Your task to perform on an android device: Open Youtube and go to the subscriptions tab Image 0: 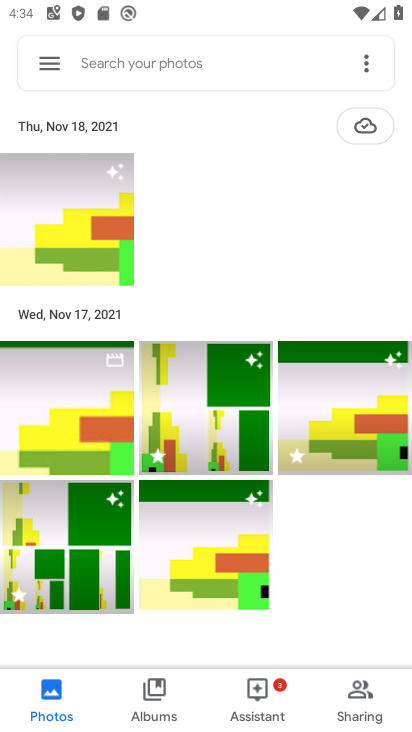
Step 0: press home button
Your task to perform on an android device: Open Youtube and go to the subscriptions tab Image 1: 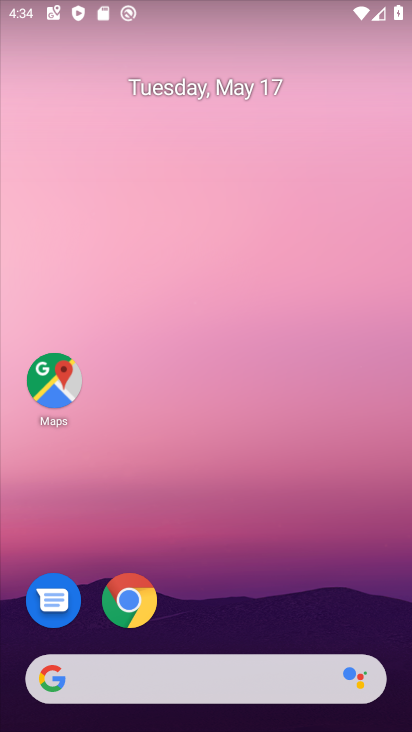
Step 1: drag from (216, 613) to (205, 3)
Your task to perform on an android device: Open Youtube and go to the subscriptions tab Image 2: 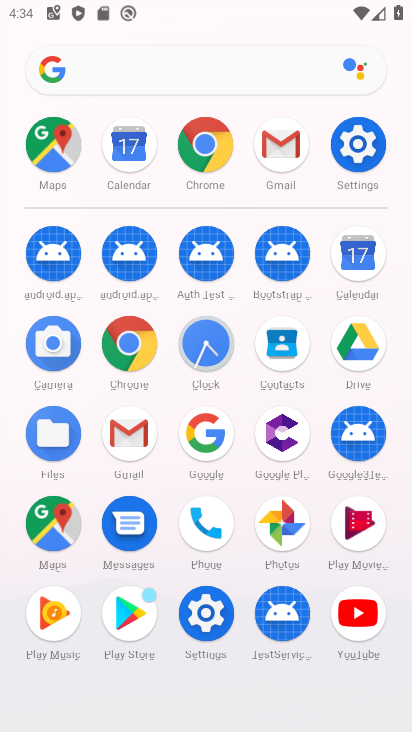
Step 2: click (355, 615)
Your task to perform on an android device: Open Youtube and go to the subscriptions tab Image 3: 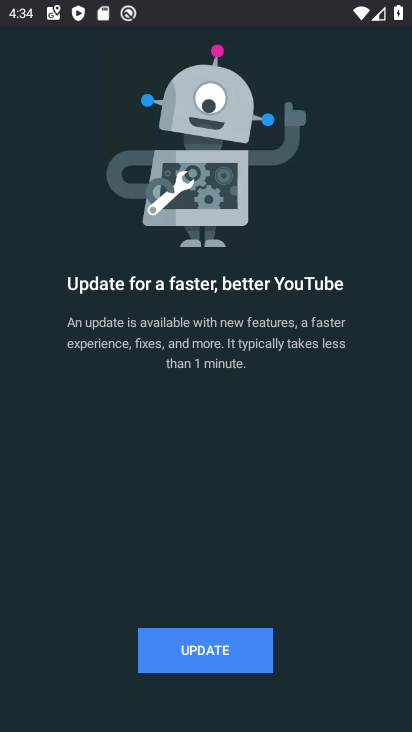
Step 3: click (236, 655)
Your task to perform on an android device: Open Youtube and go to the subscriptions tab Image 4: 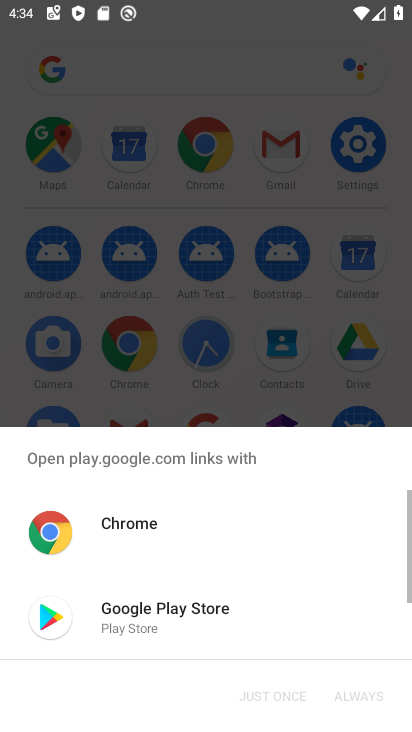
Step 4: click (136, 607)
Your task to perform on an android device: Open Youtube and go to the subscriptions tab Image 5: 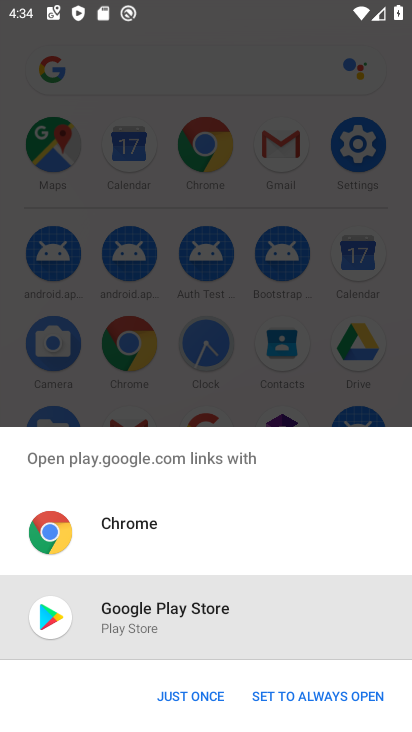
Step 5: click (184, 694)
Your task to perform on an android device: Open Youtube and go to the subscriptions tab Image 6: 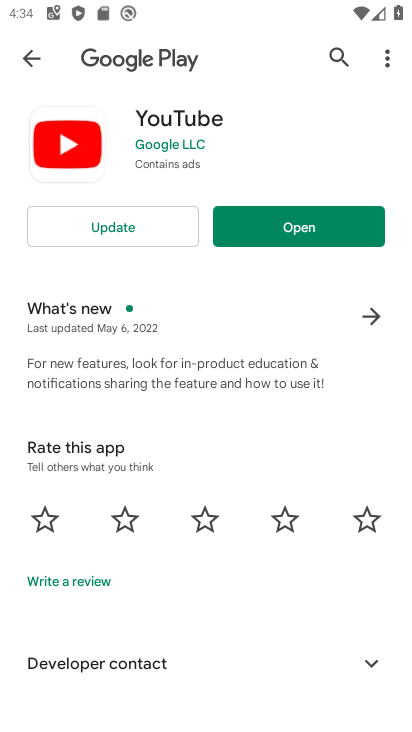
Step 6: click (143, 223)
Your task to perform on an android device: Open Youtube and go to the subscriptions tab Image 7: 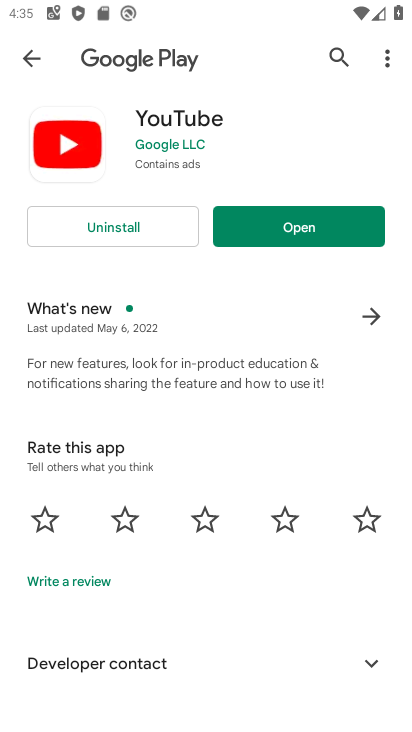
Step 7: click (287, 233)
Your task to perform on an android device: Open Youtube and go to the subscriptions tab Image 8: 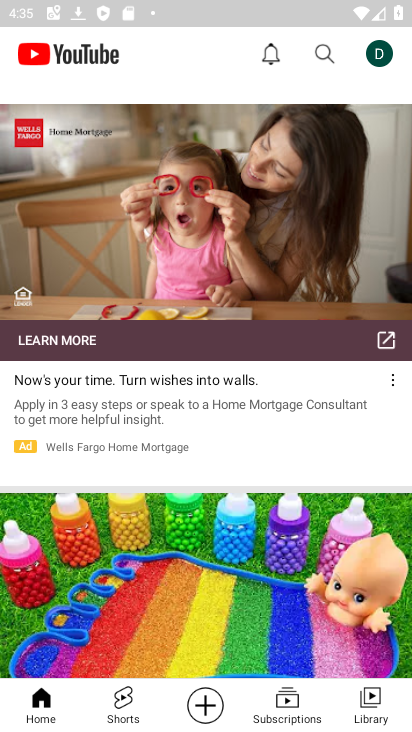
Step 8: click (298, 697)
Your task to perform on an android device: Open Youtube and go to the subscriptions tab Image 9: 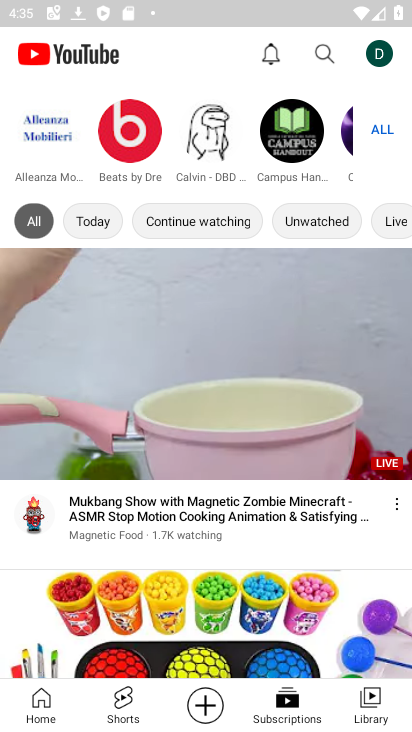
Step 9: task complete